Your task to perform on an android device: Open Google Chrome Image 0: 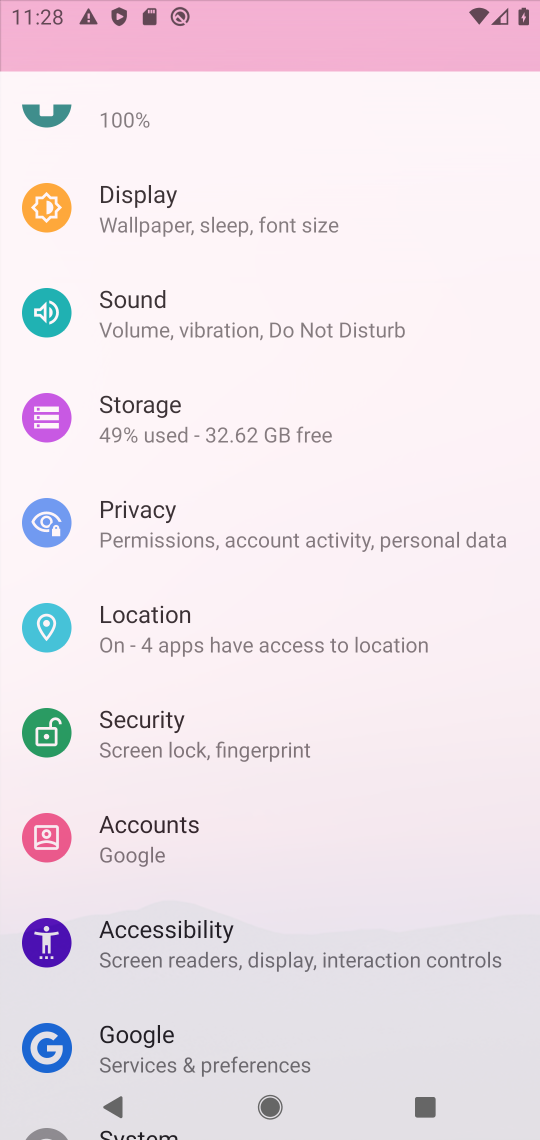
Step 0: press home button
Your task to perform on an android device: Open Google Chrome Image 1: 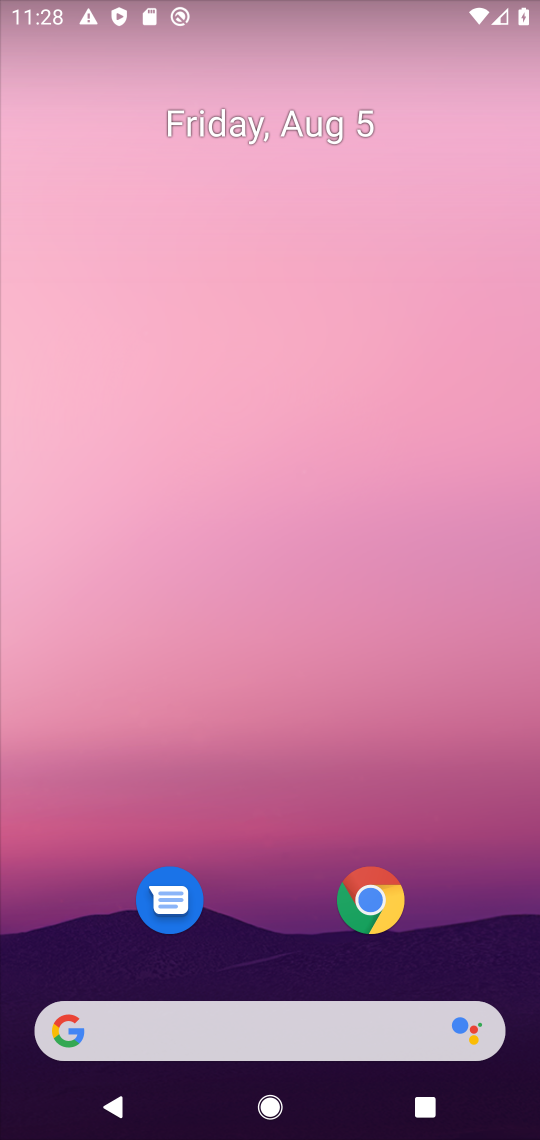
Step 1: drag from (284, 982) to (289, 196)
Your task to perform on an android device: Open Google Chrome Image 2: 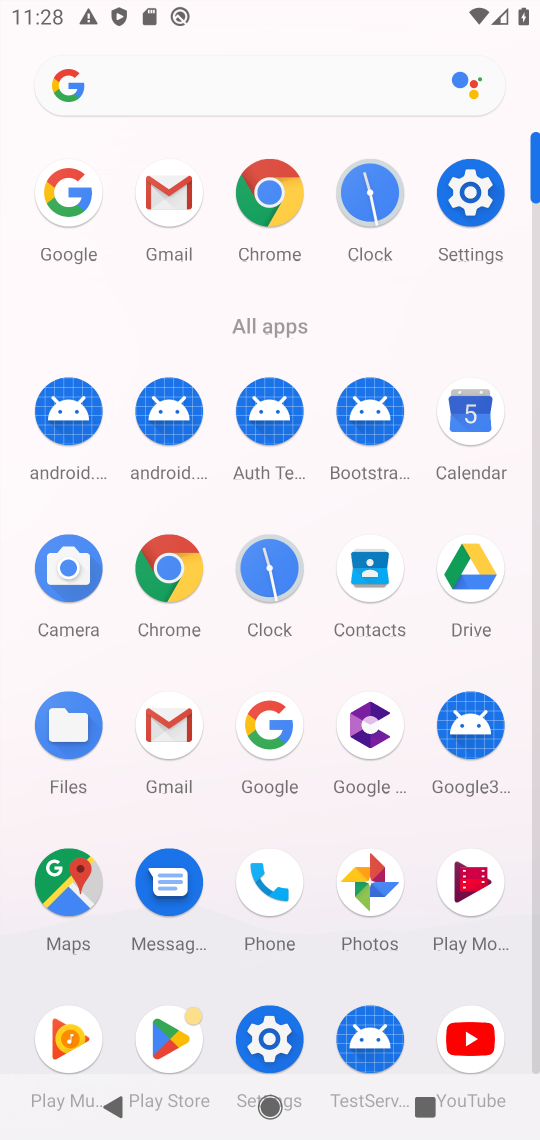
Step 2: click (169, 558)
Your task to perform on an android device: Open Google Chrome Image 3: 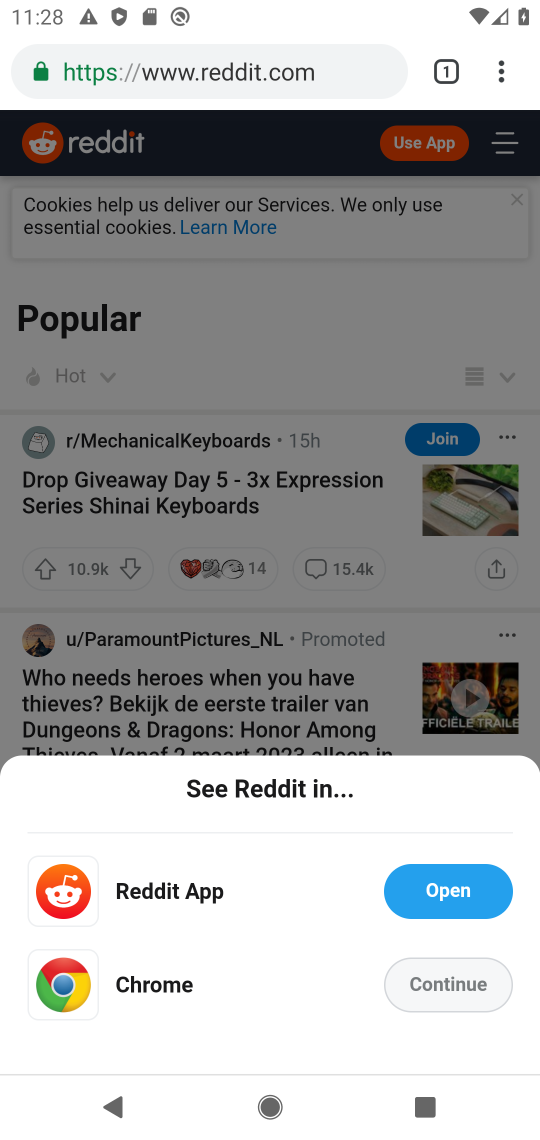
Step 3: task complete